Your task to perform on an android device: turn off airplane mode Image 0: 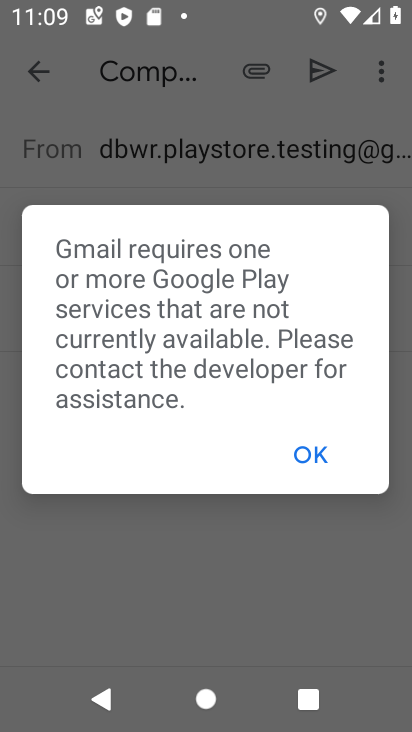
Step 0: click (315, 447)
Your task to perform on an android device: turn off airplane mode Image 1: 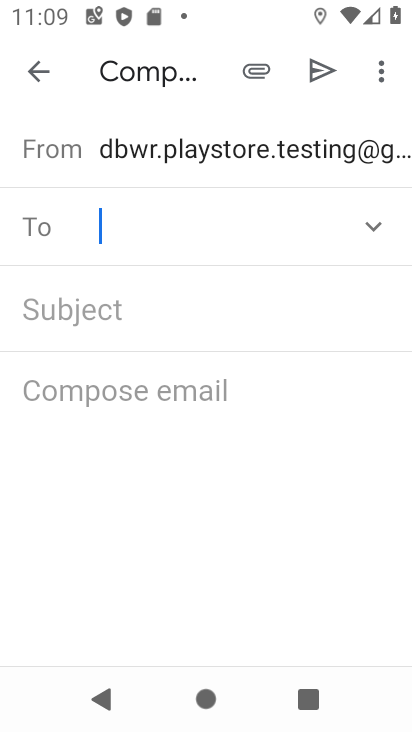
Step 1: press home button
Your task to perform on an android device: turn off airplane mode Image 2: 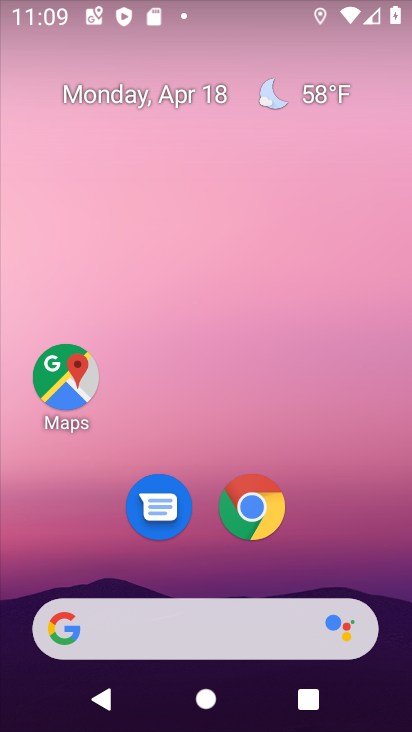
Step 2: drag from (213, 540) to (360, 37)
Your task to perform on an android device: turn off airplane mode Image 3: 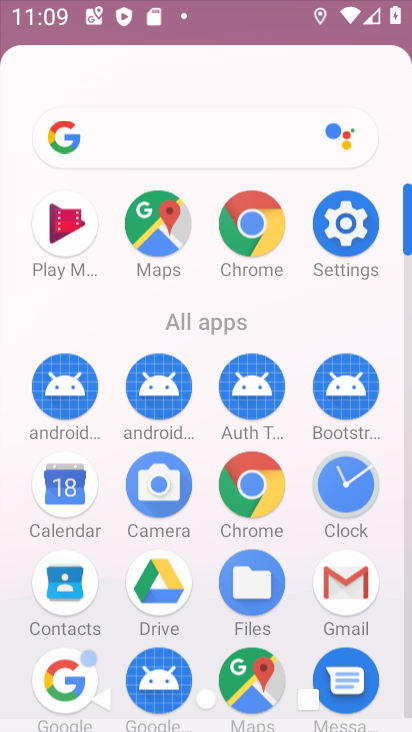
Step 3: click (343, 193)
Your task to perform on an android device: turn off airplane mode Image 4: 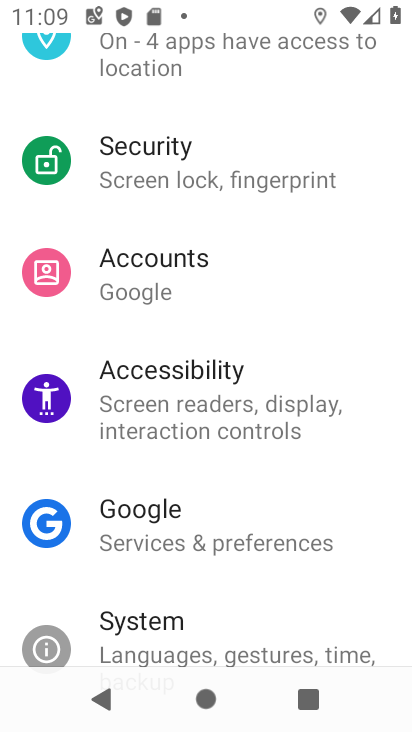
Step 4: drag from (245, 155) to (248, 657)
Your task to perform on an android device: turn off airplane mode Image 5: 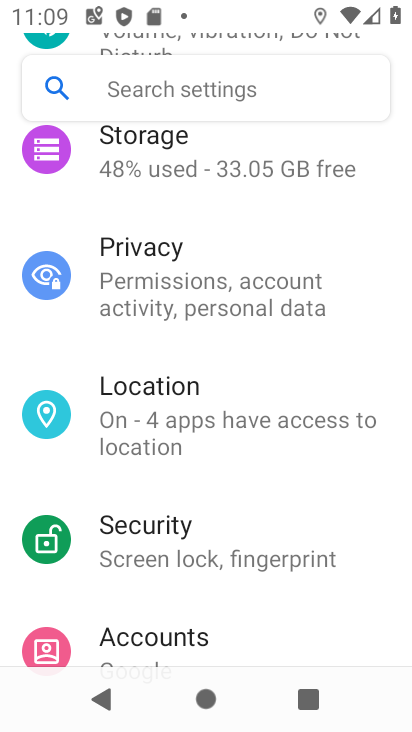
Step 5: drag from (216, 232) to (192, 703)
Your task to perform on an android device: turn off airplane mode Image 6: 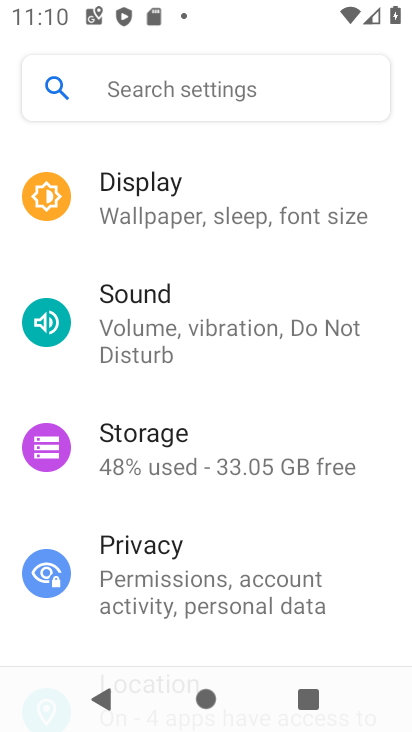
Step 6: drag from (227, 199) to (214, 644)
Your task to perform on an android device: turn off airplane mode Image 7: 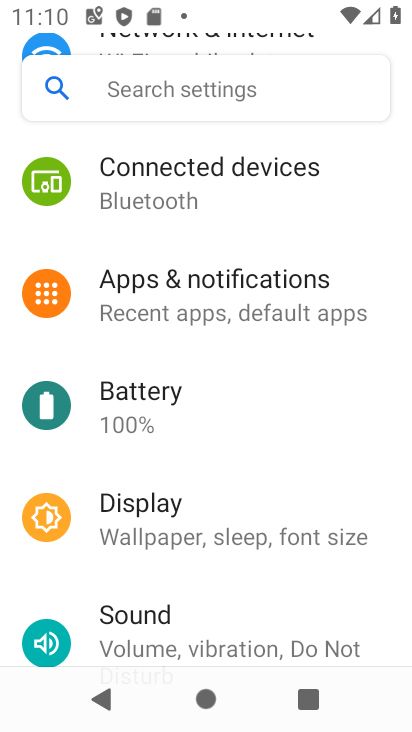
Step 7: drag from (179, 228) to (179, 496)
Your task to perform on an android device: turn off airplane mode Image 8: 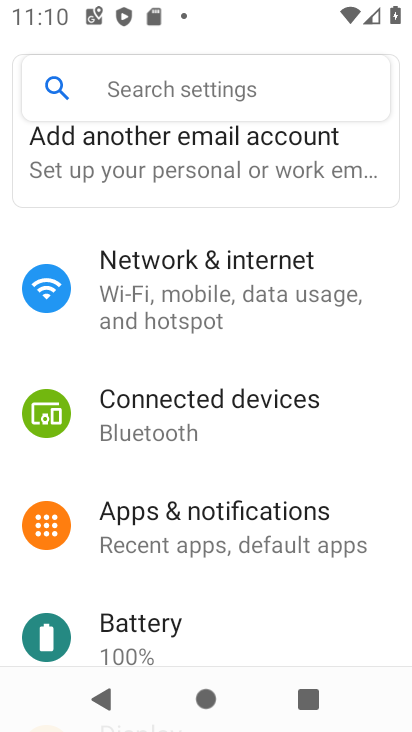
Step 8: click (161, 278)
Your task to perform on an android device: turn off airplane mode Image 9: 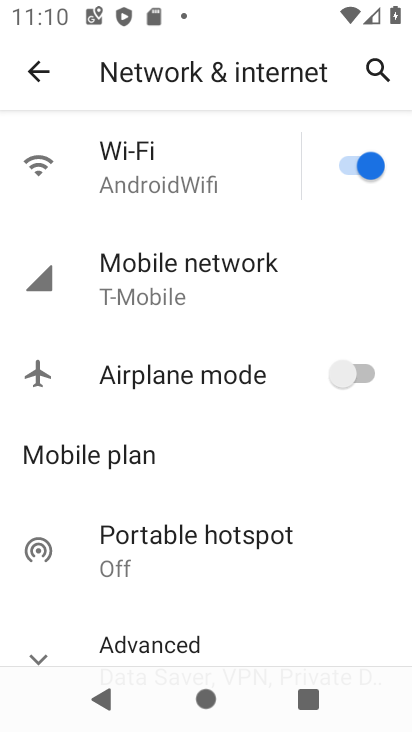
Step 9: task complete